Your task to perform on an android device: What's the weather going to be tomorrow? Image 0: 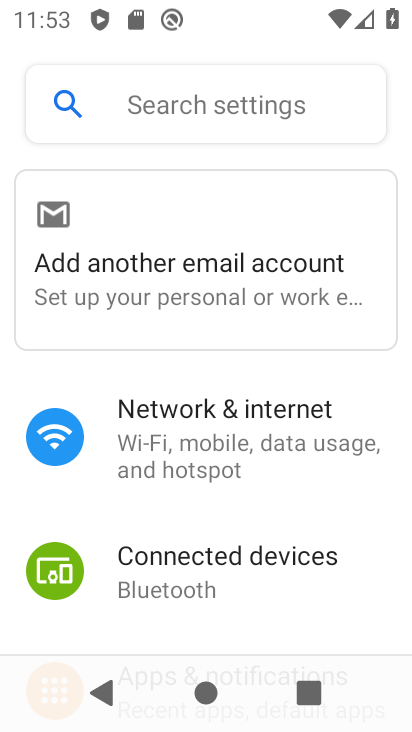
Step 0: press home button
Your task to perform on an android device: What's the weather going to be tomorrow? Image 1: 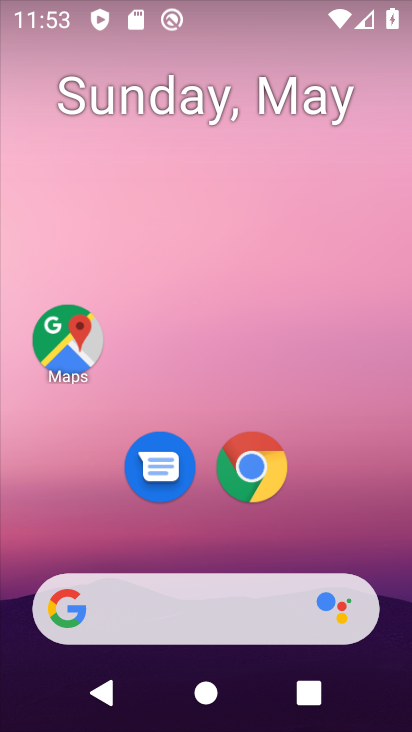
Step 1: drag from (37, 217) to (402, 296)
Your task to perform on an android device: What's the weather going to be tomorrow? Image 2: 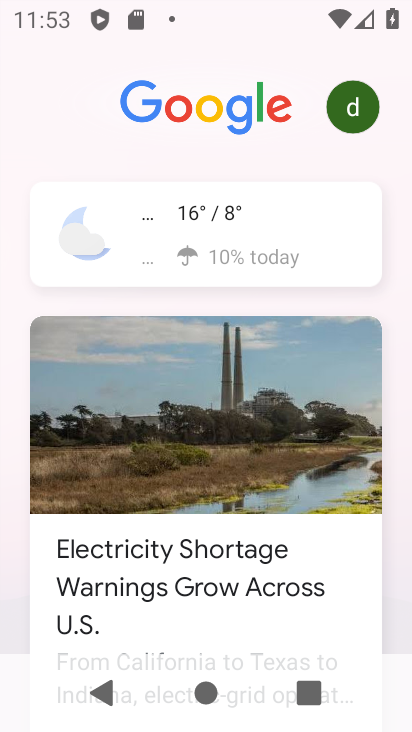
Step 2: click (272, 207)
Your task to perform on an android device: What's the weather going to be tomorrow? Image 3: 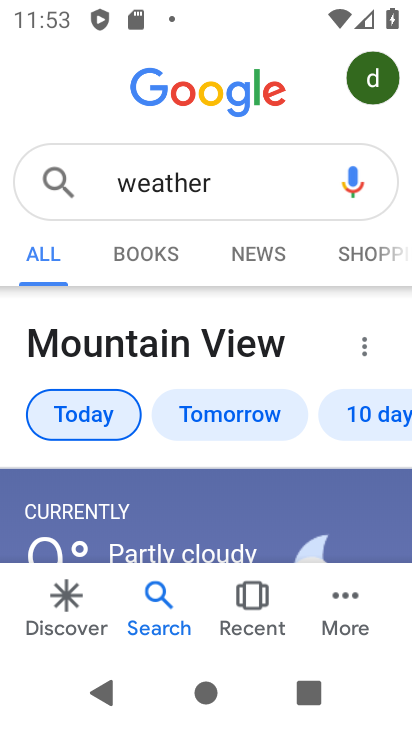
Step 3: click (236, 396)
Your task to perform on an android device: What's the weather going to be tomorrow? Image 4: 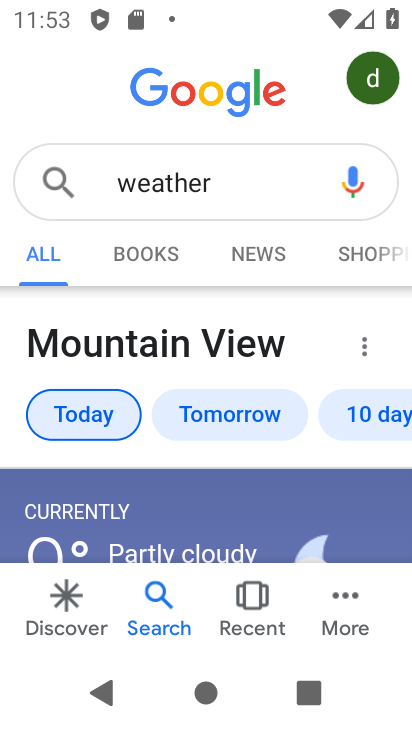
Step 4: click (216, 436)
Your task to perform on an android device: What's the weather going to be tomorrow? Image 5: 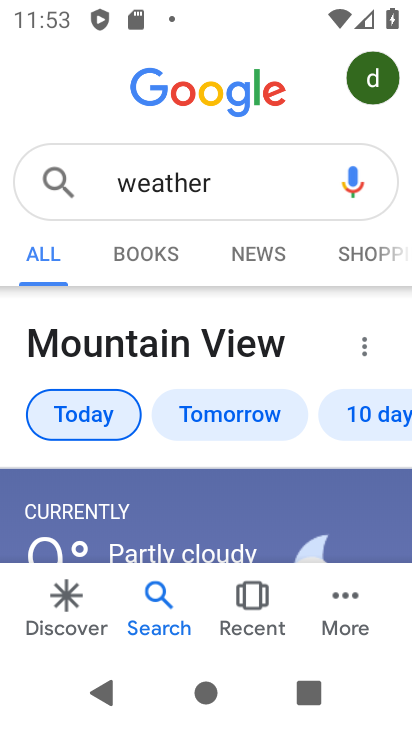
Step 5: click (220, 423)
Your task to perform on an android device: What's the weather going to be tomorrow? Image 6: 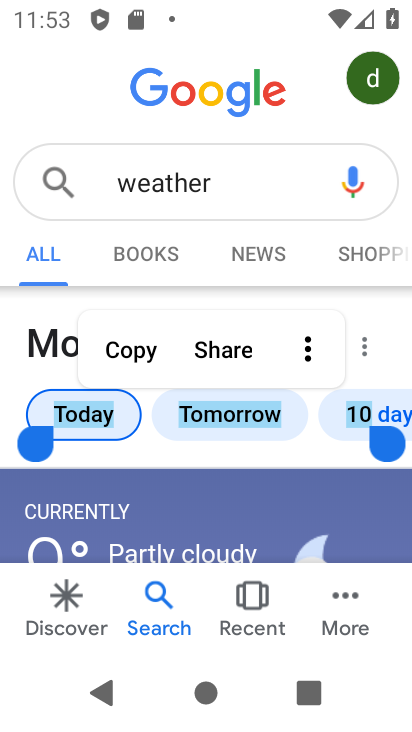
Step 6: drag from (185, 496) to (243, 47)
Your task to perform on an android device: What's the weather going to be tomorrow? Image 7: 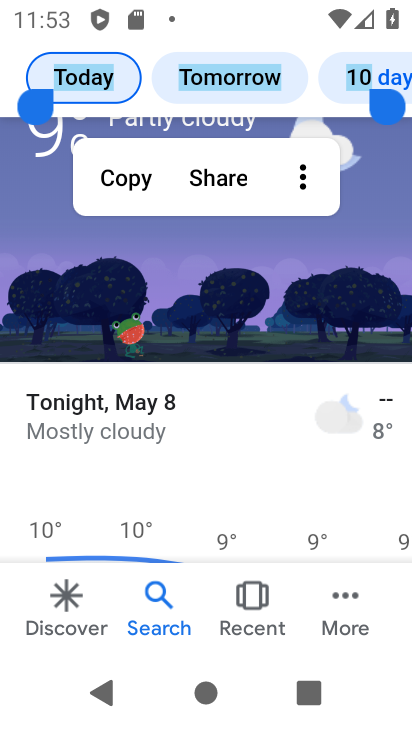
Step 7: drag from (187, 449) to (208, 116)
Your task to perform on an android device: What's the weather going to be tomorrow? Image 8: 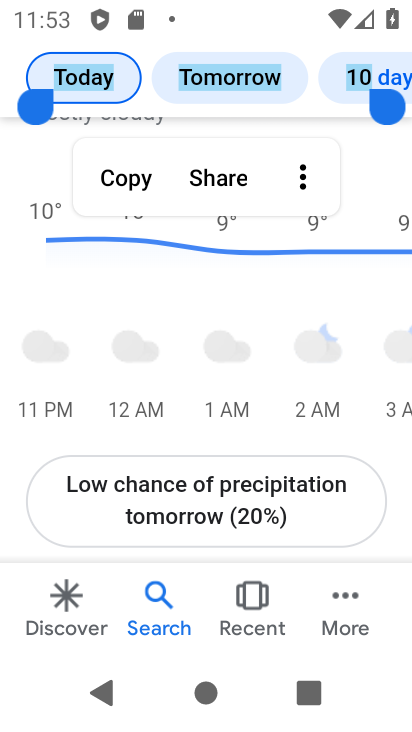
Step 8: drag from (199, 176) to (189, 450)
Your task to perform on an android device: What's the weather going to be tomorrow? Image 9: 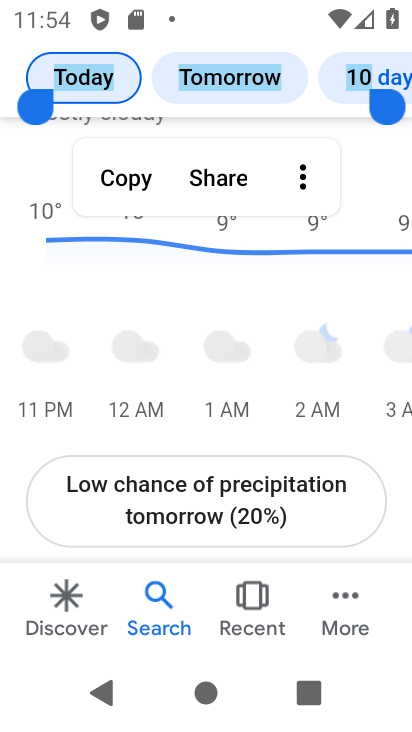
Step 9: drag from (54, 261) to (58, 477)
Your task to perform on an android device: What's the weather going to be tomorrow? Image 10: 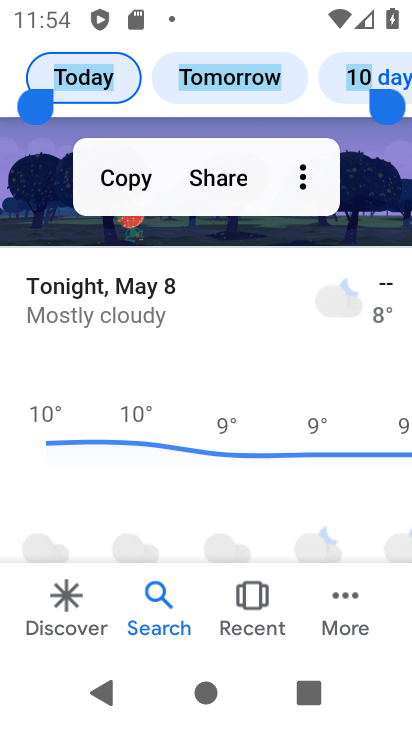
Step 10: click (131, 276)
Your task to perform on an android device: What's the weather going to be tomorrow? Image 11: 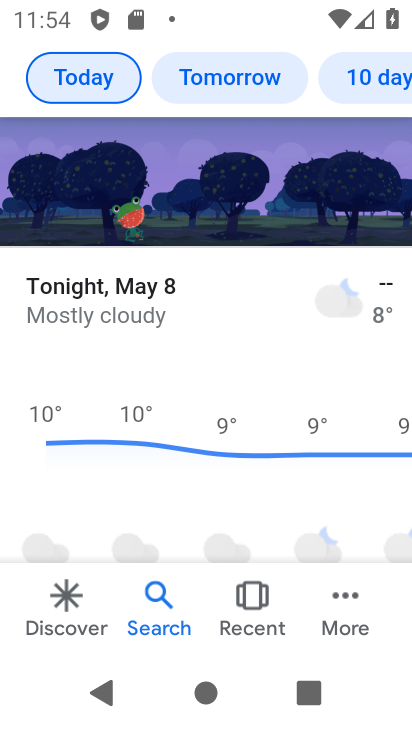
Step 11: click (131, 285)
Your task to perform on an android device: What's the weather going to be tomorrow? Image 12: 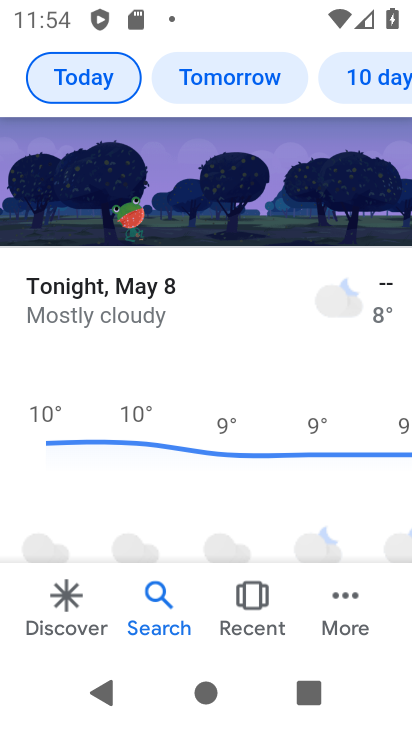
Step 12: click (162, 306)
Your task to perform on an android device: What's the weather going to be tomorrow? Image 13: 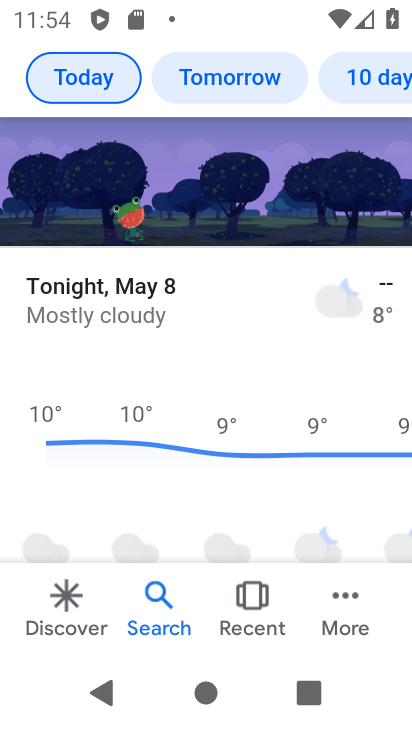
Step 13: click (226, 81)
Your task to perform on an android device: What's the weather going to be tomorrow? Image 14: 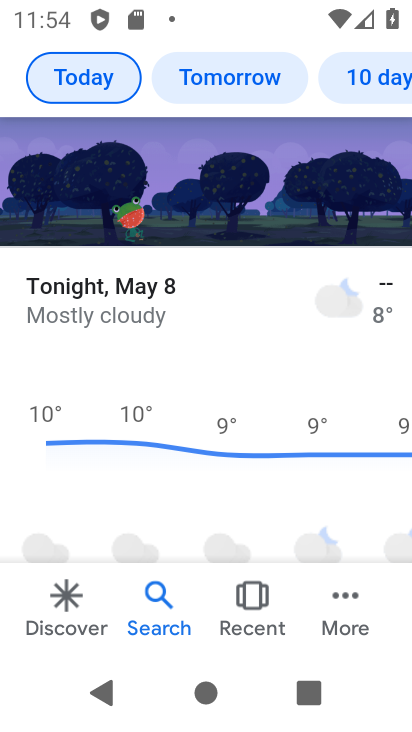
Step 14: task complete